Your task to perform on an android device: see sites visited before in the chrome app Image 0: 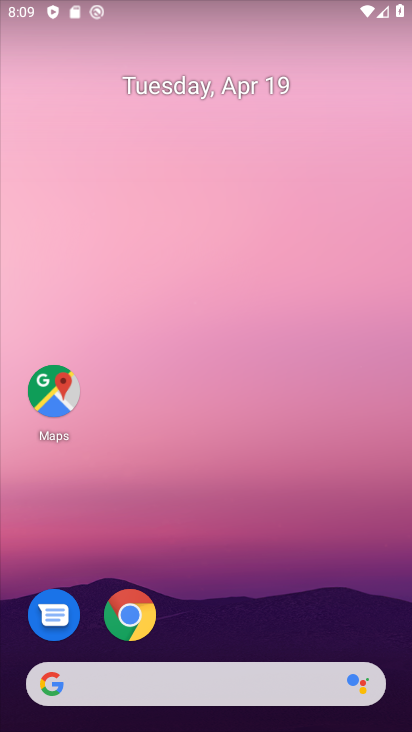
Step 0: drag from (366, 502) to (249, 35)
Your task to perform on an android device: see sites visited before in the chrome app Image 1: 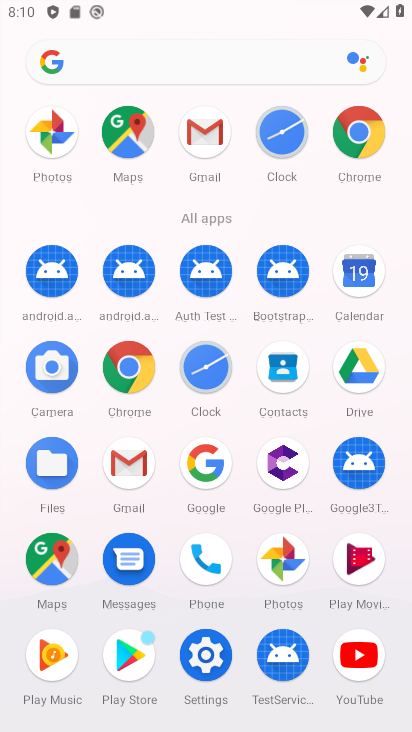
Step 1: click (355, 131)
Your task to perform on an android device: see sites visited before in the chrome app Image 2: 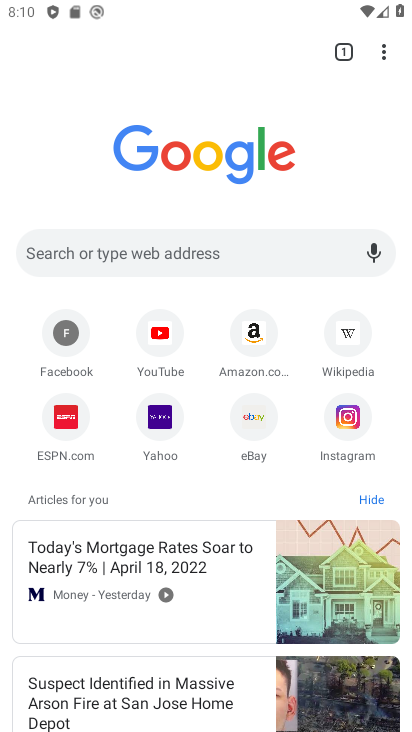
Step 2: task complete